Your task to perform on an android device: What's the weather going to be this weekend? Image 0: 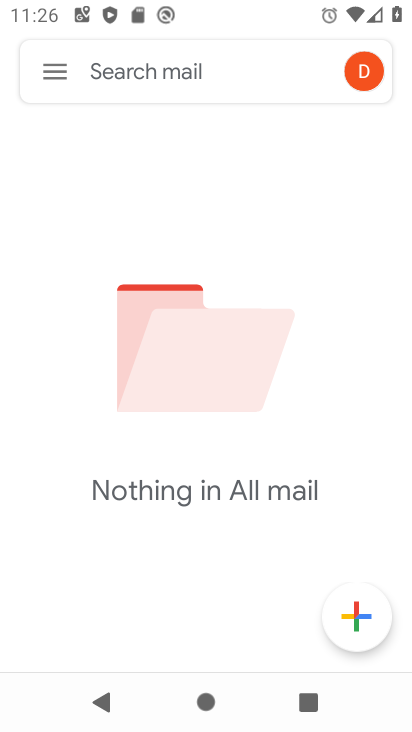
Step 0: press home button
Your task to perform on an android device: What's the weather going to be this weekend? Image 1: 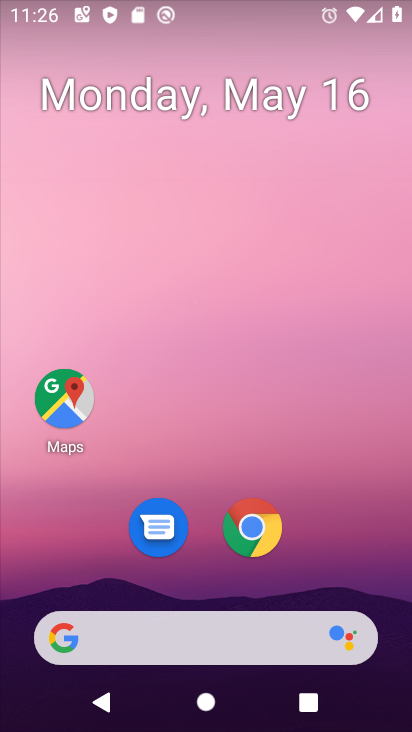
Step 1: click (109, 650)
Your task to perform on an android device: What's the weather going to be this weekend? Image 2: 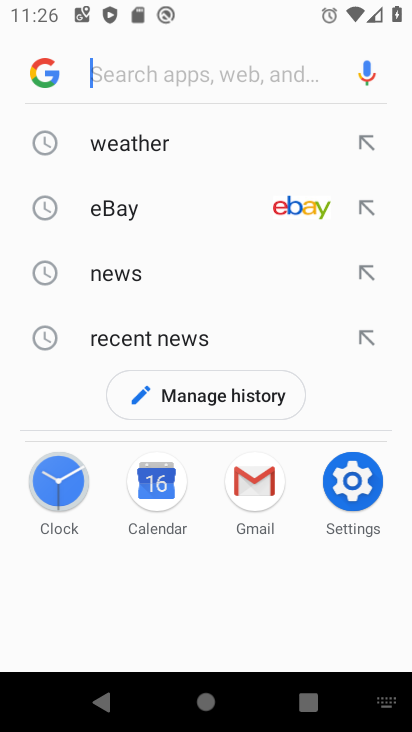
Step 2: click (129, 143)
Your task to perform on an android device: What's the weather going to be this weekend? Image 3: 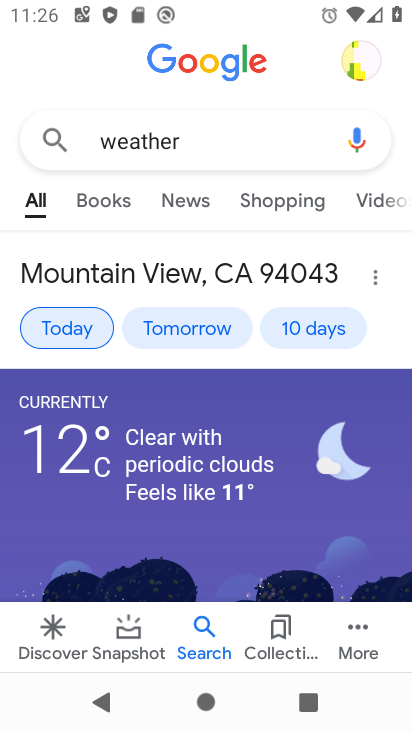
Step 3: click (295, 324)
Your task to perform on an android device: What's the weather going to be this weekend? Image 4: 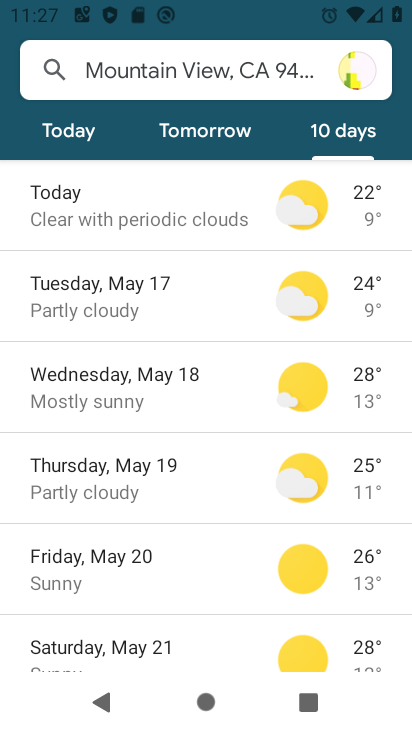
Step 4: task complete